Your task to perform on an android device: delete the emails in spam in the gmail app Image 0: 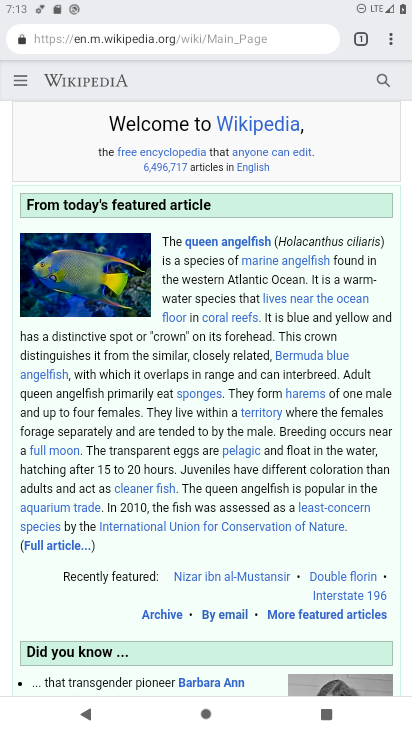
Step 0: press home button
Your task to perform on an android device: delete the emails in spam in the gmail app Image 1: 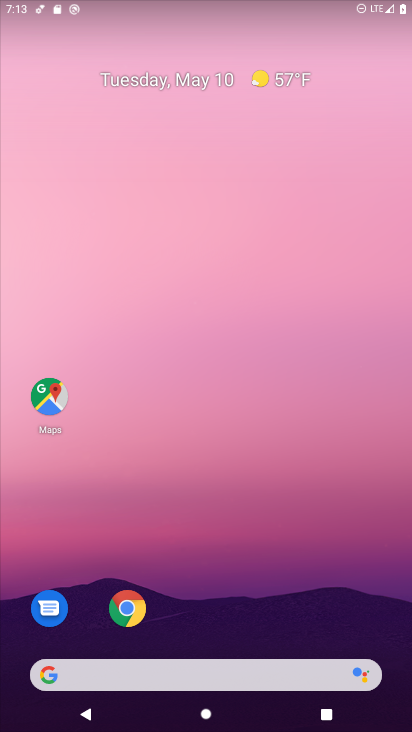
Step 1: drag from (307, 628) to (293, 40)
Your task to perform on an android device: delete the emails in spam in the gmail app Image 2: 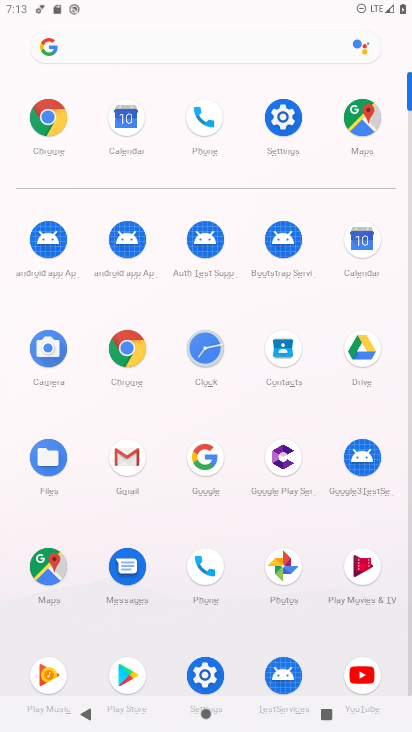
Step 2: click (132, 468)
Your task to perform on an android device: delete the emails in spam in the gmail app Image 3: 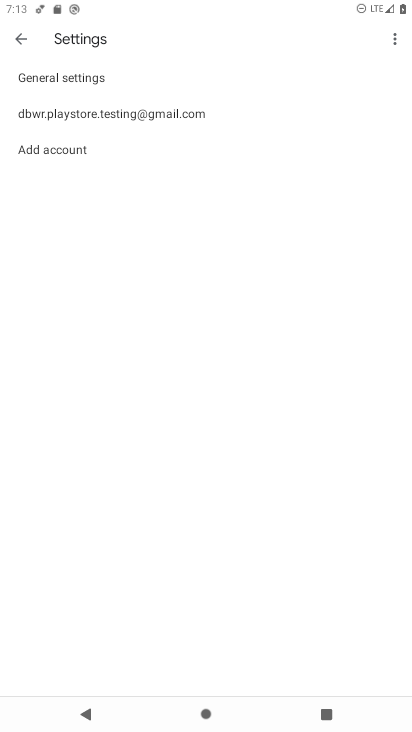
Step 3: press back button
Your task to perform on an android device: delete the emails in spam in the gmail app Image 4: 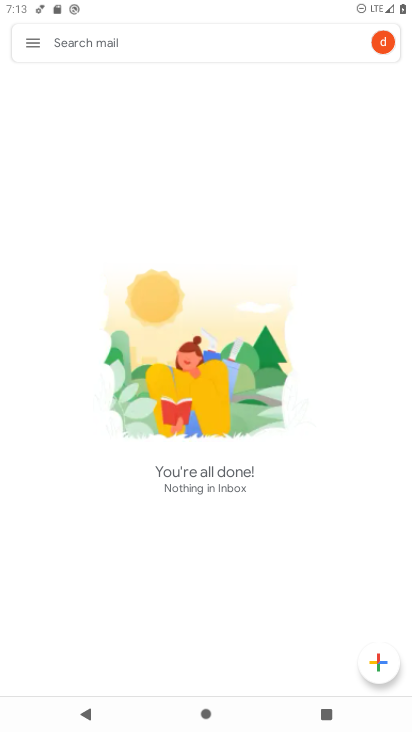
Step 4: click (23, 43)
Your task to perform on an android device: delete the emails in spam in the gmail app Image 5: 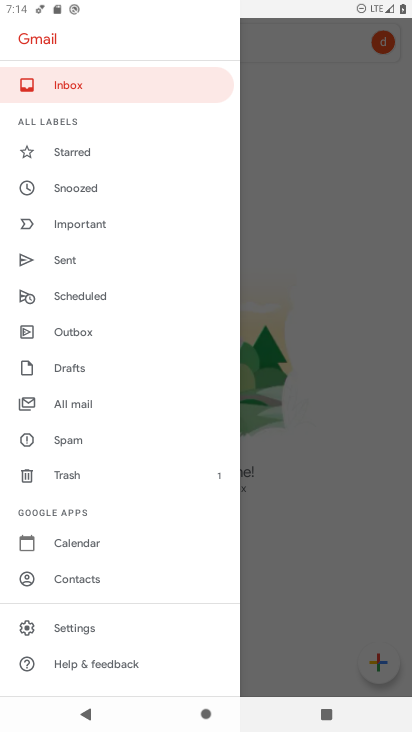
Step 5: click (80, 438)
Your task to perform on an android device: delete the emails in spam in the gmail app Image 6: 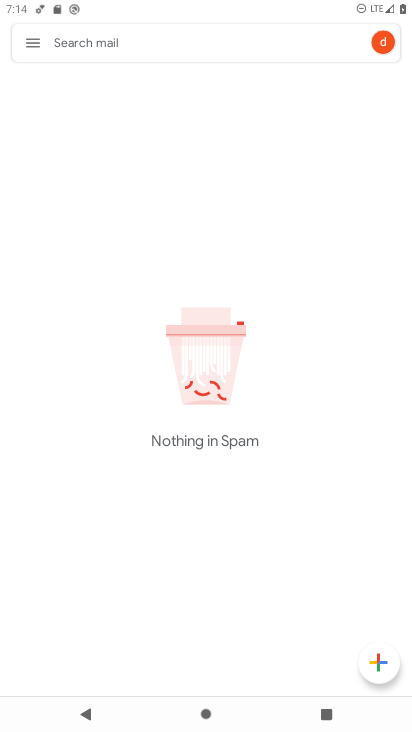
Step 6: task complete